Your task to perform on an android device: turn on translation in the chrome app Image 0: 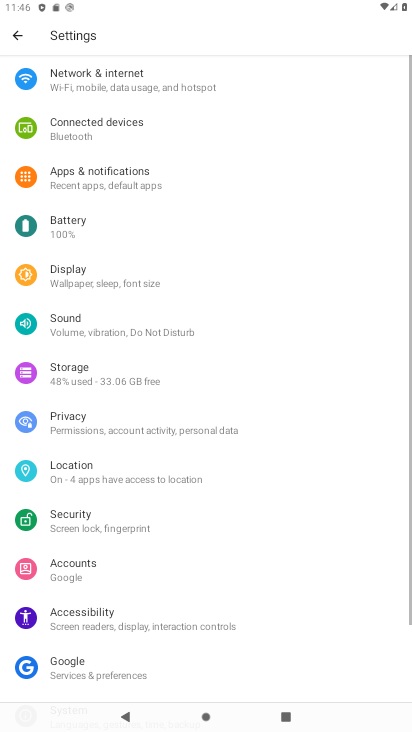
Step 0: press home button
Your task to perform on an android device: turn on translation in the chrome app Image 1: 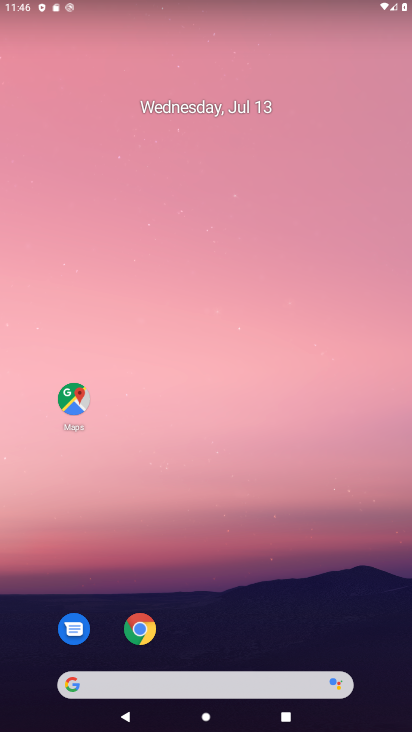
Step 1: click (132, 631)
Your task to perform on an android device: turn on translation in the chrome app Image 2: 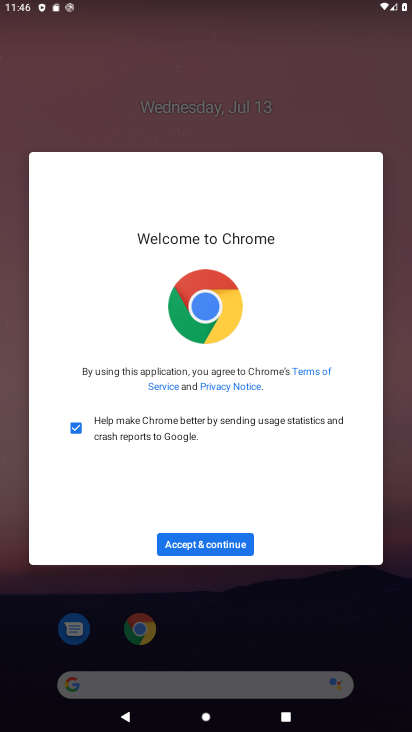
Step 2: click (242, 541)
Your task to perform on an android device: turn on translation in the chrome app Image 3: 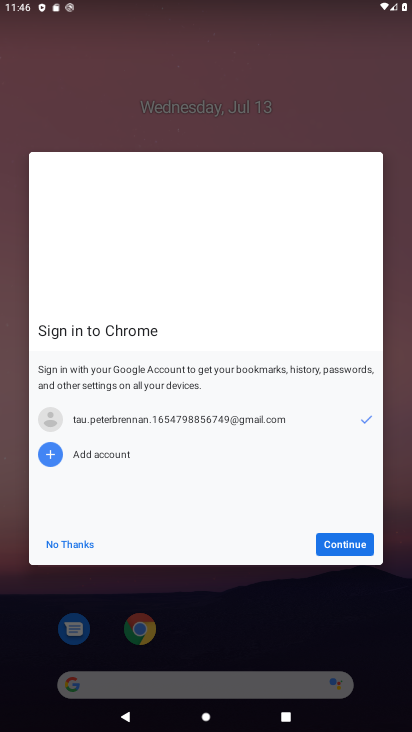
Step 3: click (326, 540)
Your task to perform on an android device: turn on translation in the chrome app Image 4: 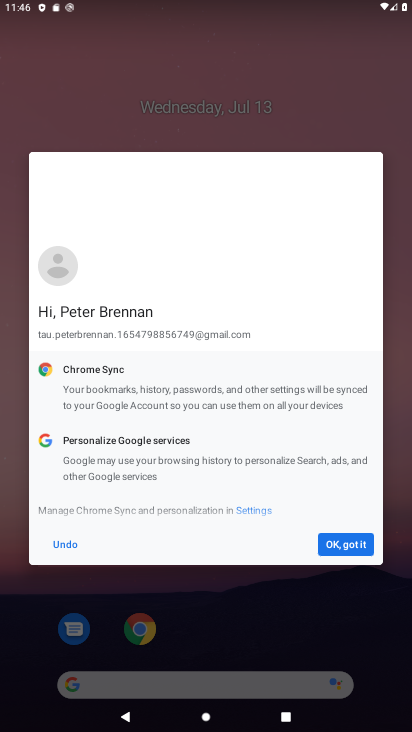
Step 4: click (343, 546)
Your task to perform on an android device: turn on translation in the chrome app Image 5: 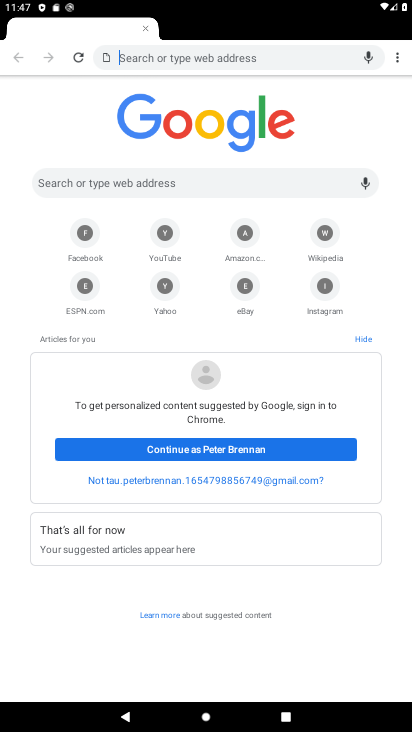
Step 5: click (401, 57)
Your task to perform on an android device: turn on translation in the chrome app Image 6: 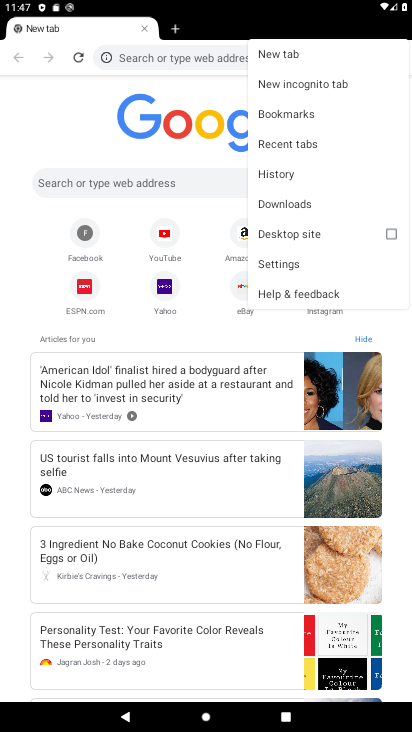
Step 6: click (281, 262)
Your task to perform on an android device: turn on translation in the chrome app Image 7: 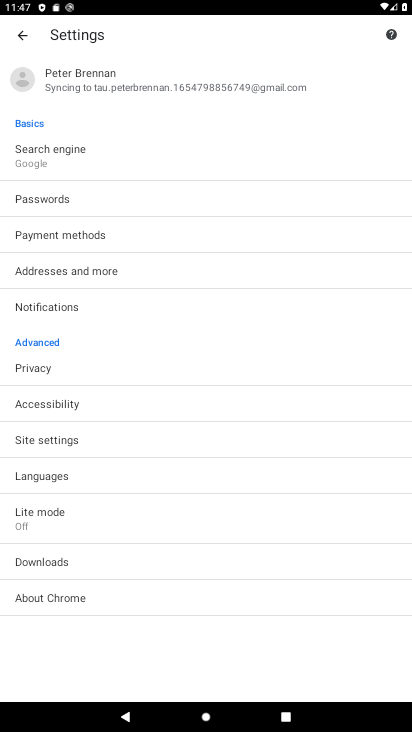
Step 7: click (42, 476)
Your task to perform on an android device: turn on translation in the chrome app Image 8: 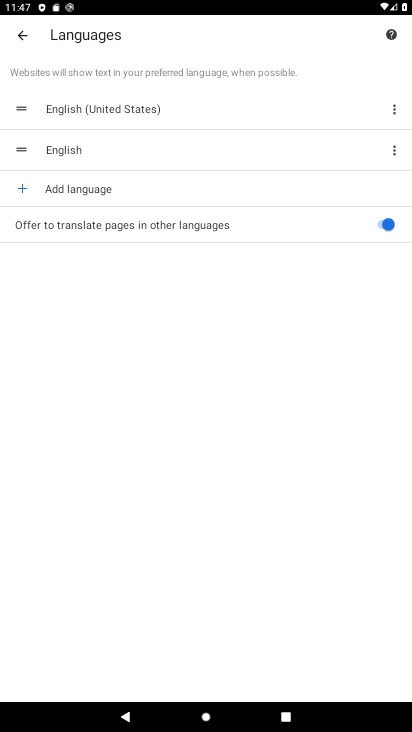
Step 8: task complete